Your task to perform on an android device: See recent photos Image 0: 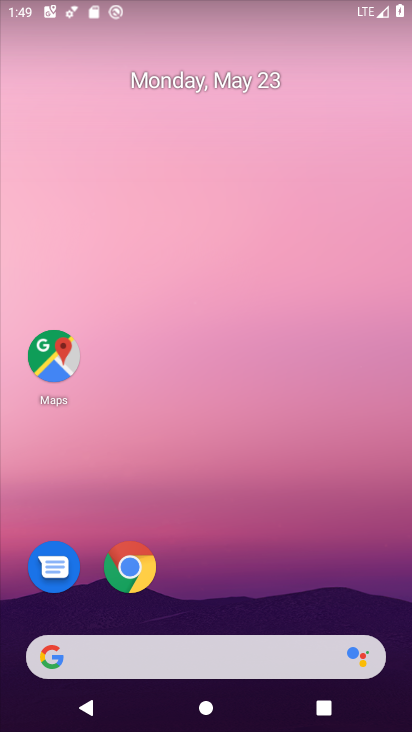
Step 0: drag from (272, 568) to (280, 285)
Your task to perform on an android device: See recent photos Image 1: 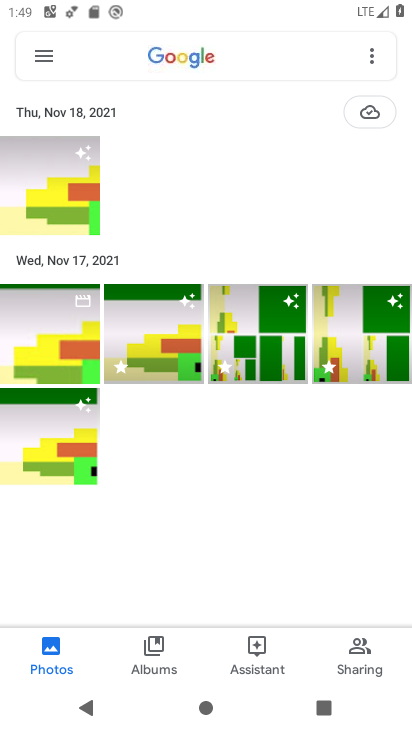
Step 1: press home button
Your task to perform on an android device: See recent photos Image 2: 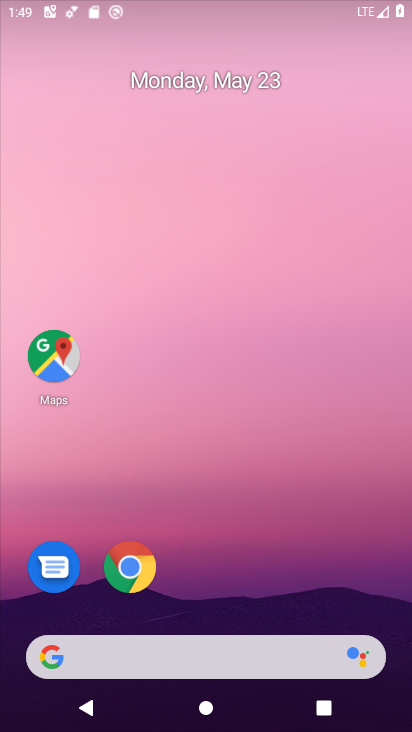
Step 2: drag from (279, 580) to (242, 238)
Your task to perform on an android device: See recent photos Image 3: 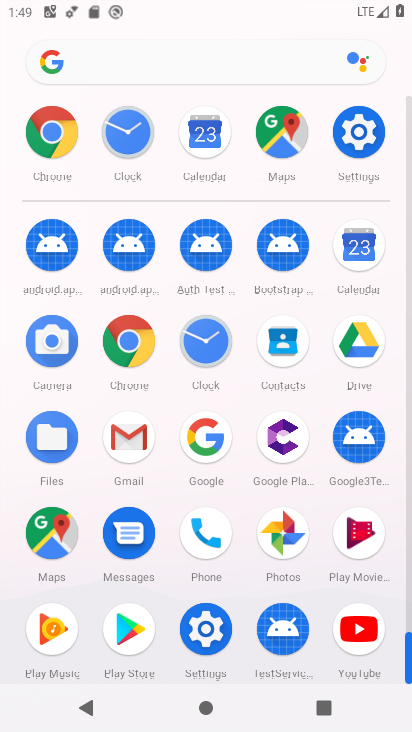
Step 3: click (282, 546)
Your task to perform on an android device: See recent photos Image 4: 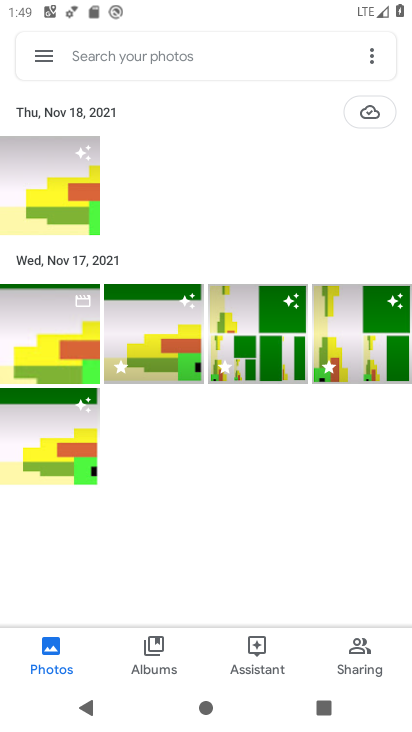
Step 4: click (27, 403)
Your task to perform on an android device: See recent photos Image 5: 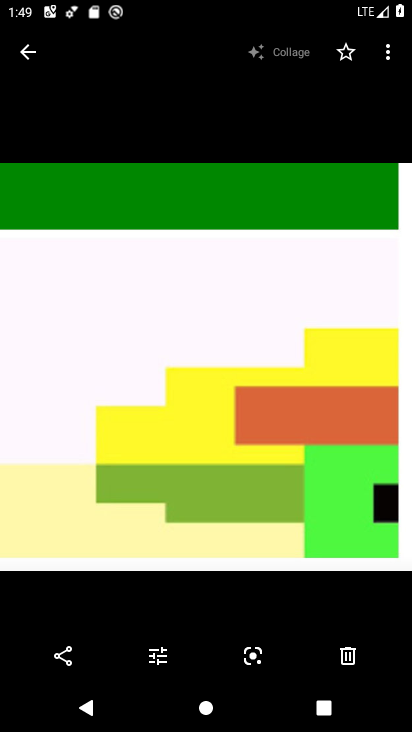
Step 5: click (43, 63)
Your task to perform on an android device: See recent photos Image 6: 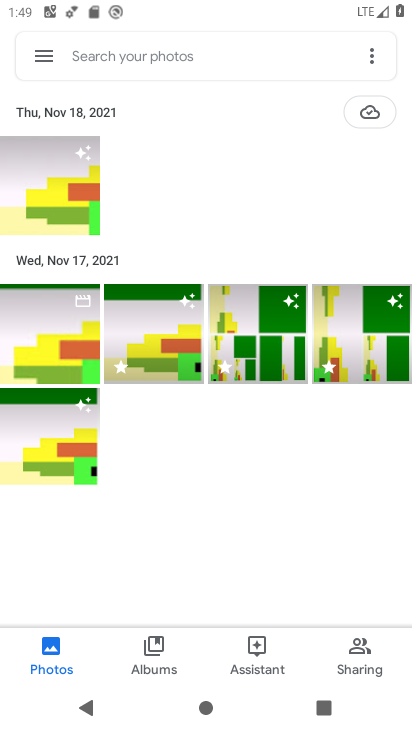
Step 6: task complete